Your task to perform on an android device: Go to privacy settings Image 0: 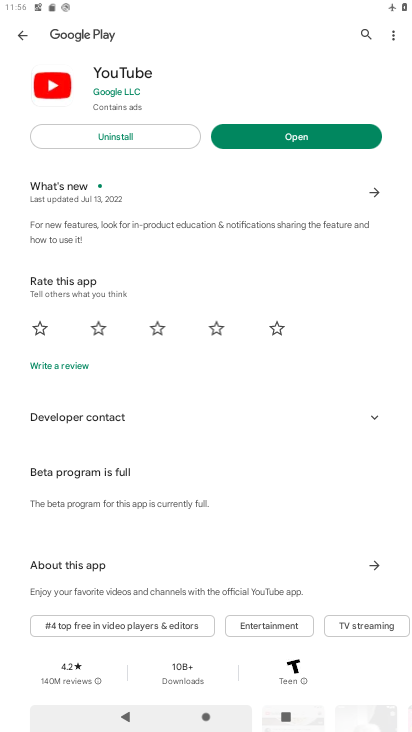
Step 0: press home button
Your task to perform on an android device: Go to privacy settings Image 1: 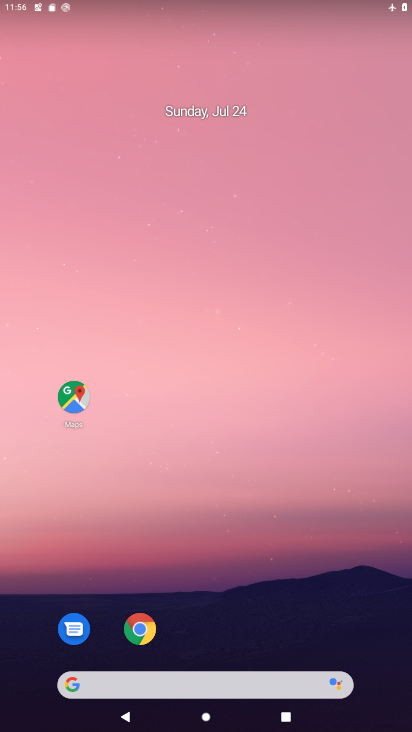
Step 1: drag from (214, 542) to (256, 0)
Your task to perform on an android device: Go to privacy settings Image 2: 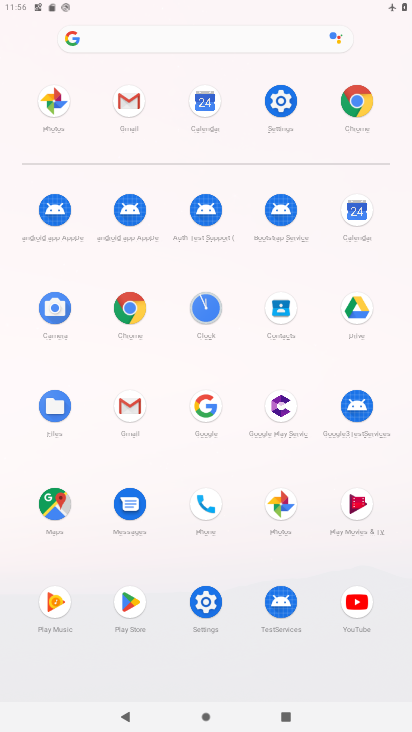
Step 2: click (286, 116)
Your task to perform on an android device: Go to privacy settings Image 3: 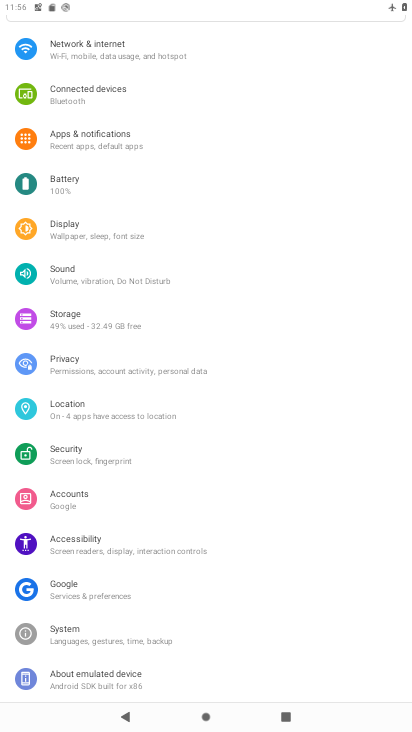
Step 3: click (96, 371)
Your task to perform on an android device: Go to privacy settings Image 4: 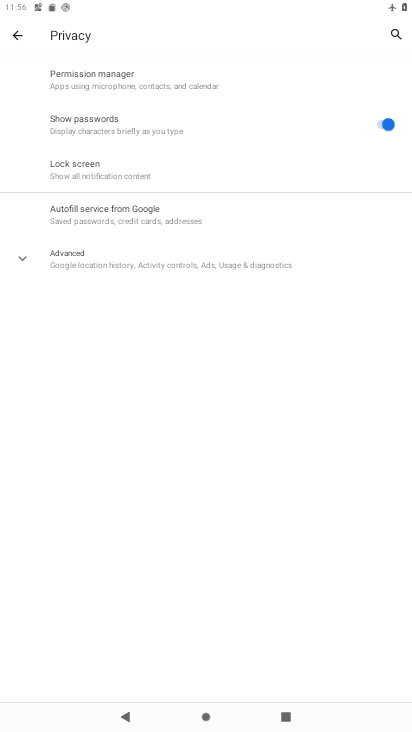
Step 4: task complete